Your task to perform on an android device: visit the assistant section in the google photos Image 0: 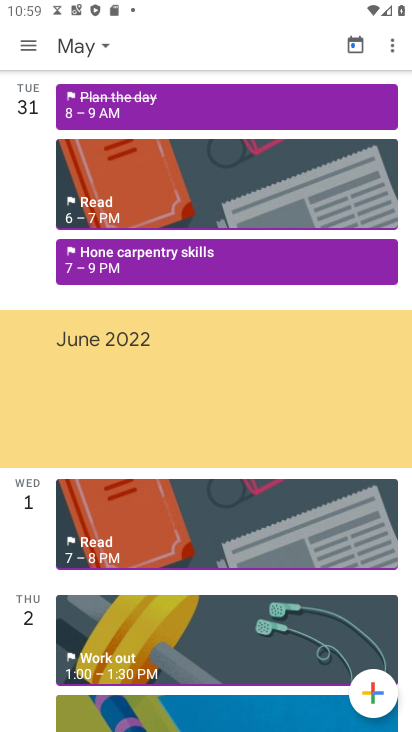
Step 0: press home button
Your task to perform on an android device: visit the assistant section in the google photos Image 1: 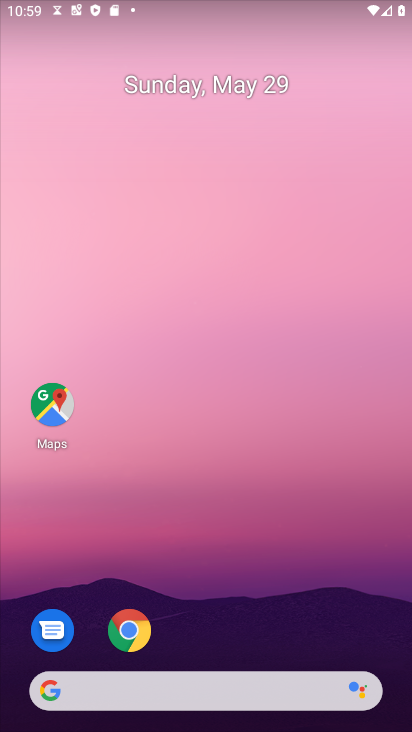
Step 1: drag from (281, 576) to (305, 79)
Your task to perform on an android device: visit the assistant section in the google photos Image 2: 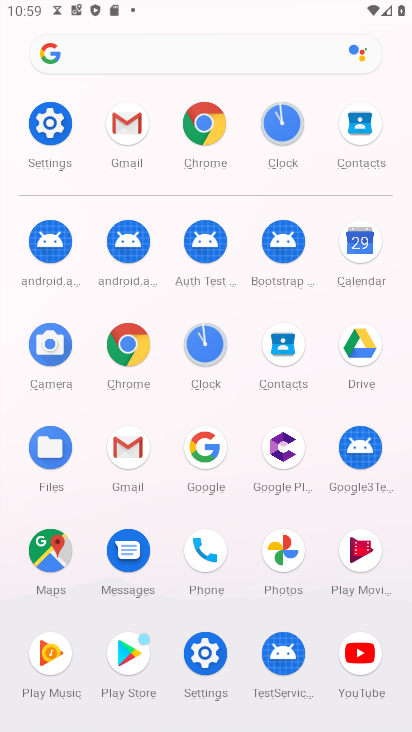
Step 2: click (280, 558)
Your task to perform on an android device: visit the assistant section in the google photos Image 3: 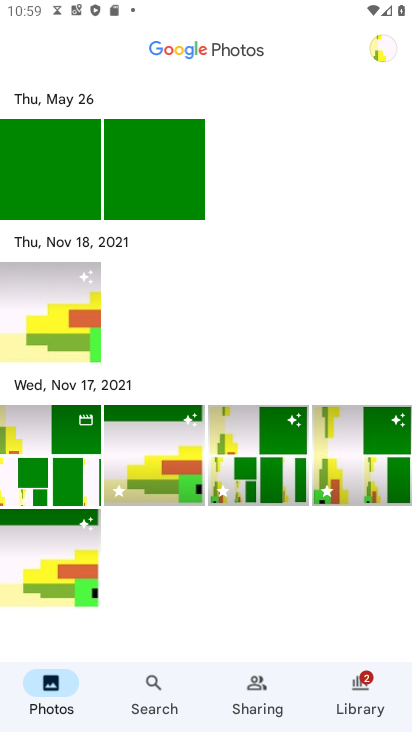
Step 3: click (388, 32)
Your task to perform on an android device: visit the assistant section in the google photos Image 4: 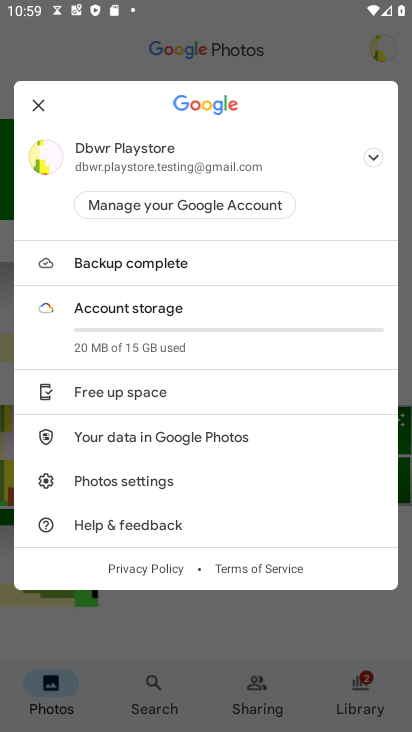
Step 4: click (134, 478)
Your task to perform on an android device: visit the assistant section in the google photos Image 5: 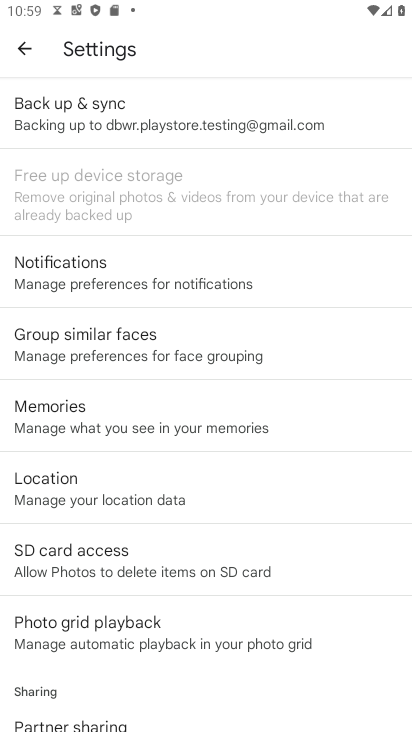
Step 5: task complete